Your task to perform on an android device: turn pop-ups on in chrome Image 0: 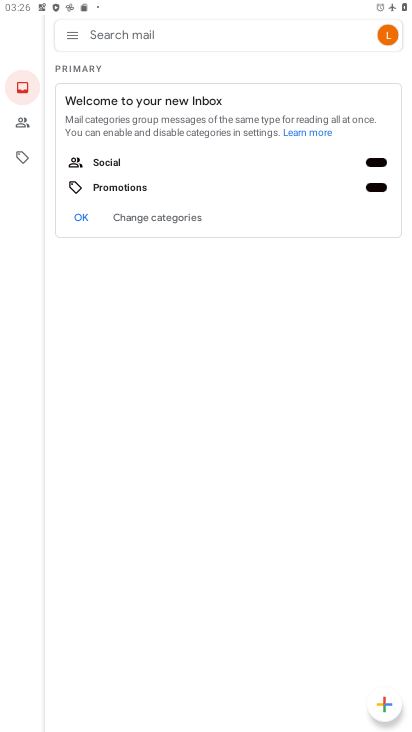
Step 0: press home button
Your task to perform on an android device: turn pop-ups on in chrome Image 1: 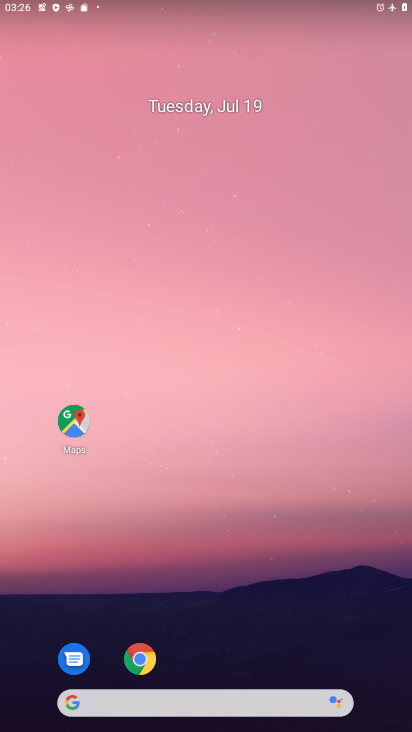
Step 1: drag from (248, 708) to (222, 113)
Your task to perform on an android device: turn pop-ups on in chrome Image 2: 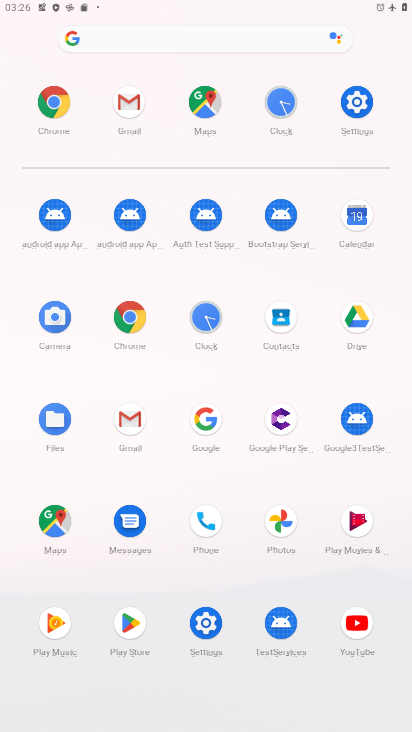
Step 2: click (56, 108)
Your task to perform on an android device: turn pop-ups on in chrome Image 3: 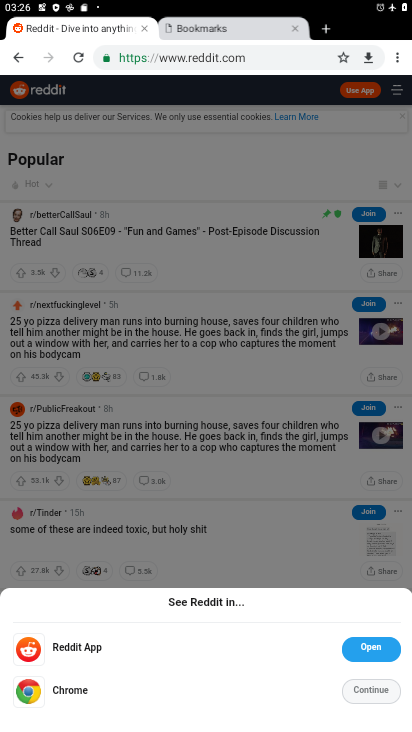
Step 3: drag from (403, 52) to (289, 379)
Your task to perform on an android device: turn pop-ups on in chrome Image 4: 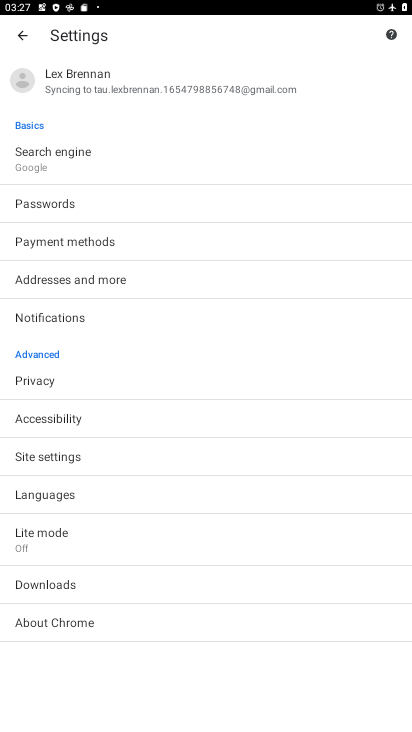
Step 4: click (354, 466)
Your task to perform on an android device: turn pop-ups on in chrome Image 5: 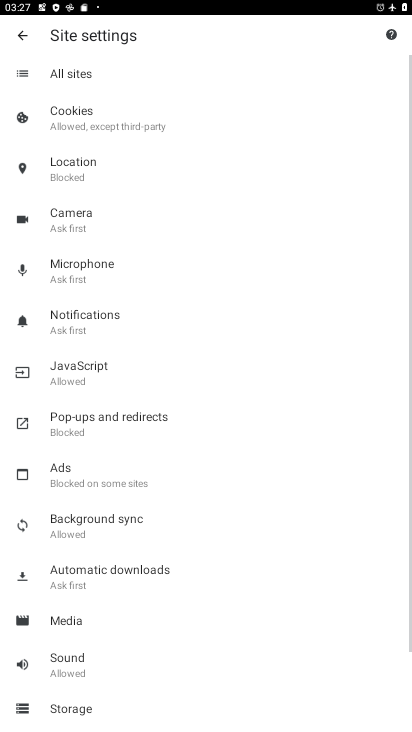
Step 5: click (281, 415)
Your task to perform on an android device: turn pop-ups on in chrome Image 6: 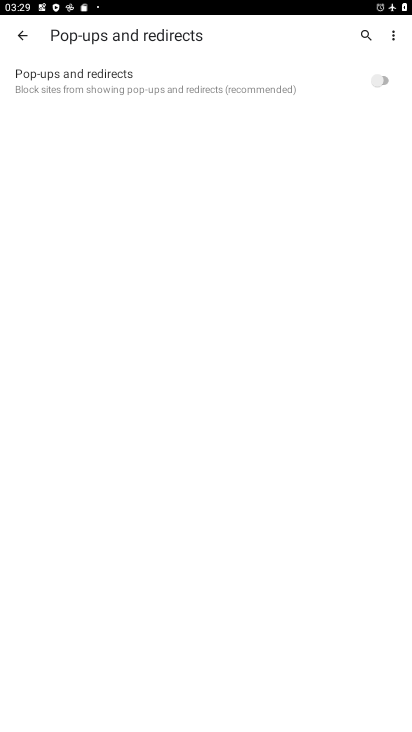
Step 6: click (209, 81)
Your task to perform on an android device: turn pop-ups on in chrome Image 7: 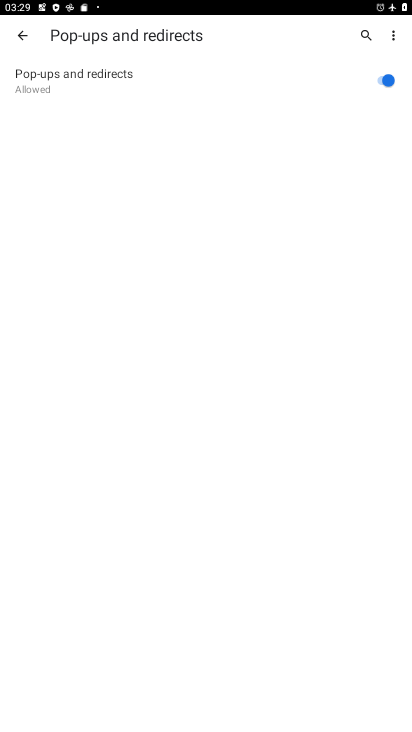
Step 7: task complete